Your task to perform on an android device: Turn on the flashlight Image 0: 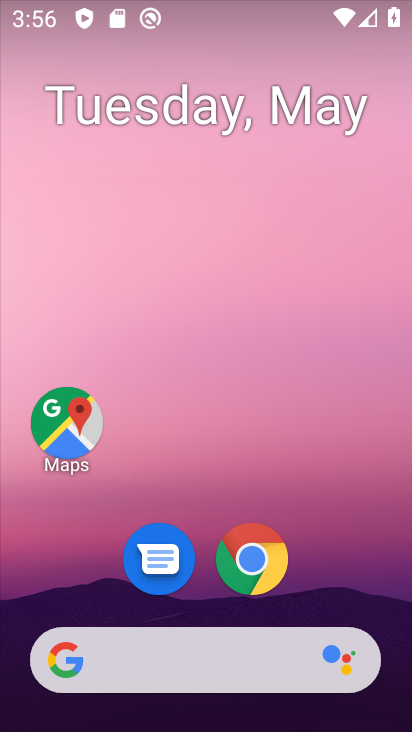
Step 0: drag from (251, 8) to (253, 457)
Your task to perform on an android device: Turn on the flashlight Image 1: 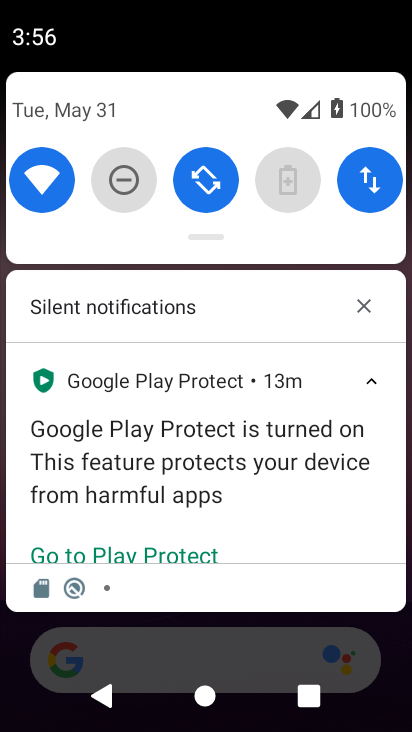
Step 1: drag from (245, 216) to (238, 594)
Your task to perform on an android device: Turn on the flashlight Image 2: 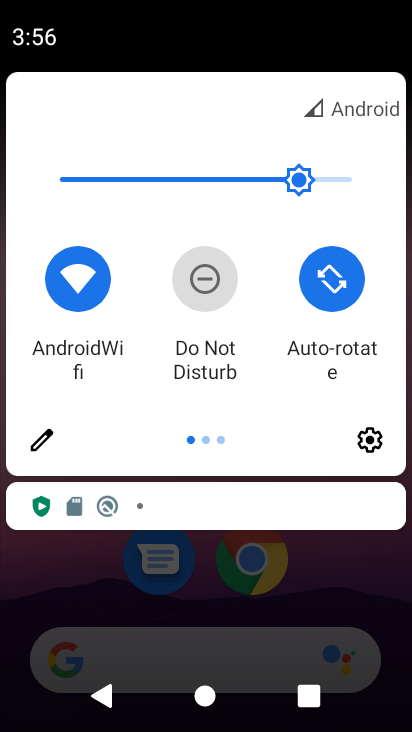
Step 2: click (43, 433)
Your task to perform on an android device: Turn on the flashlight Image 3: 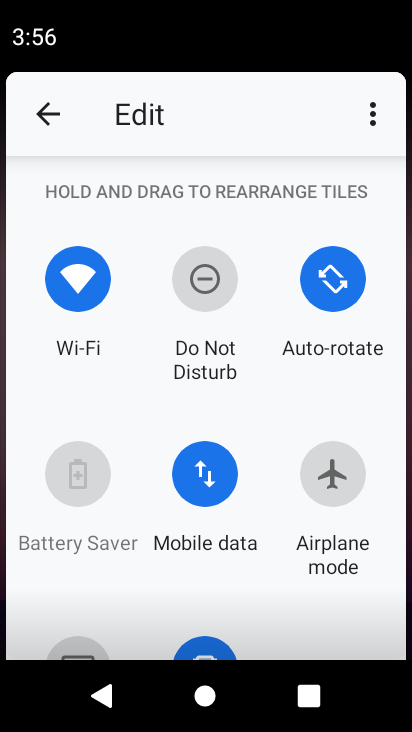
Step 3: task complete